Your task to perform on an android device: Open Chrome and go to settings Image 0: 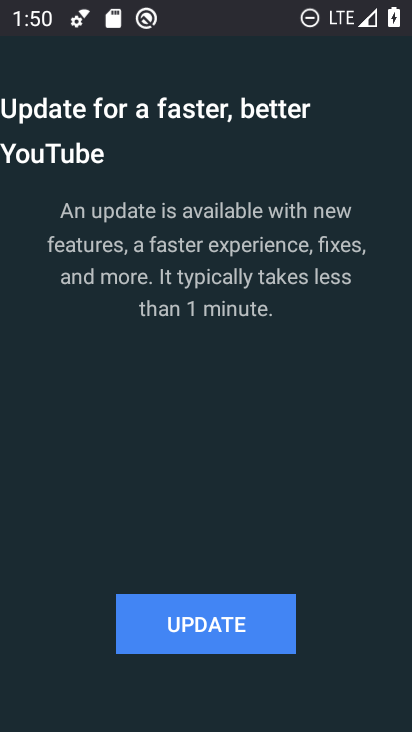
Step 0: press home button
Your task to perform on an android device: Open Chrome and go to settings Image 1: 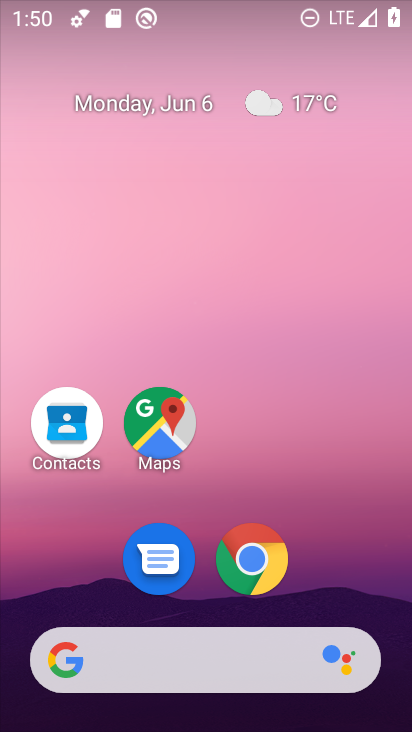
Step 1: drag from (280, 540) to (382, 124)
Your task to perform on an android device: Open Chrome and go to settings Image 2: 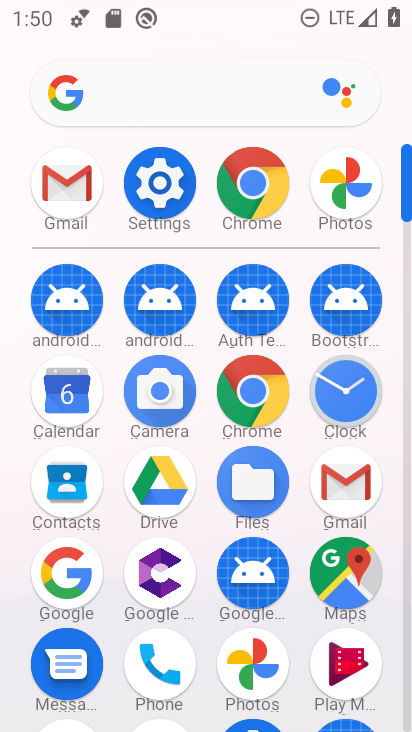
Step 2: click (254, 200)
Your task to perform on an android device: Open Chrome and go to settings Image 3: 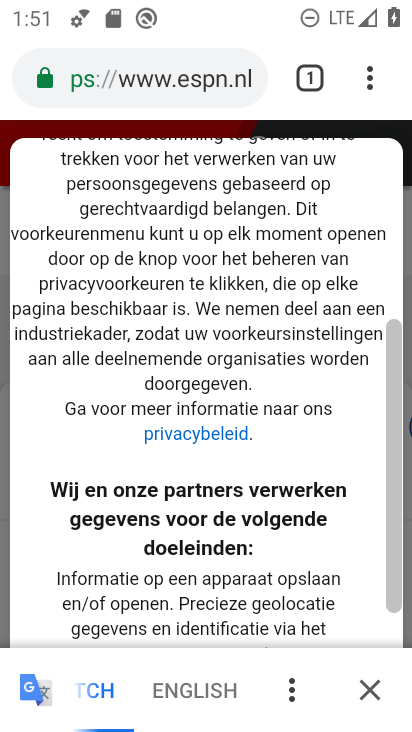
Step 3: click (381, 92)
Your task to perform on an android device: Open Chrome and go to settings Image 4: 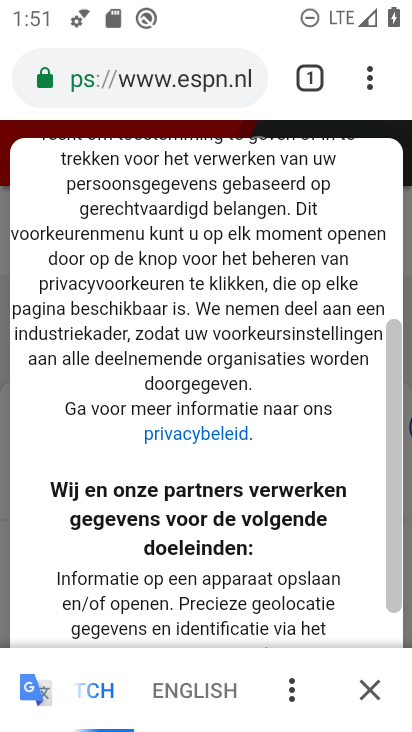
Step 4: click (372, 79)
Your task to perform on an android device: Open Chrome and go to settings Image 5: 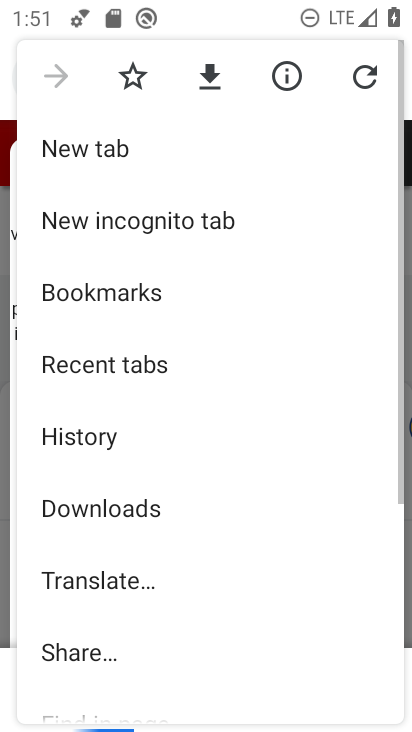
Step 5: drag from (244, 454) to (327, 6)
Your task to perform on an android device: Open Chrome and go to settings Image 6: 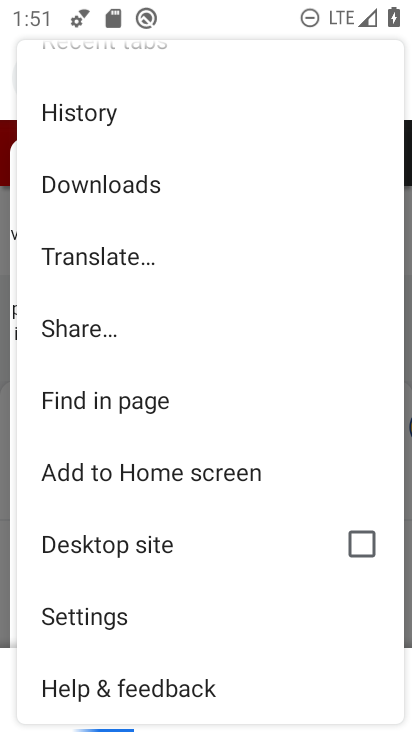
Step 6: click (141, 618)
Your task to perform on an android device: Open Chrome and go to settings Image 7: 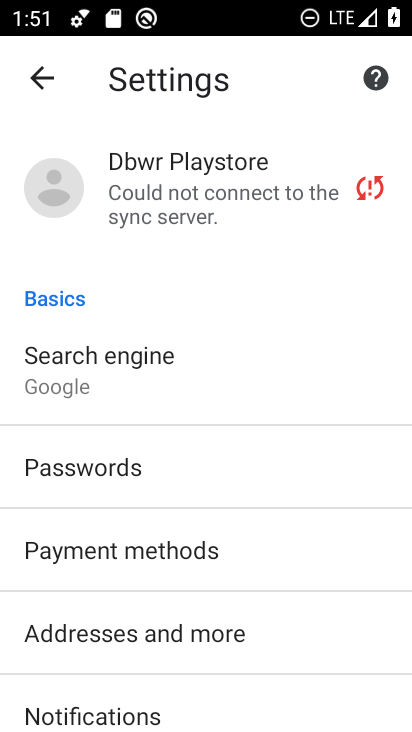
Step 7: task complete